Your task to perform on an android device: Open sound settings Image 0: 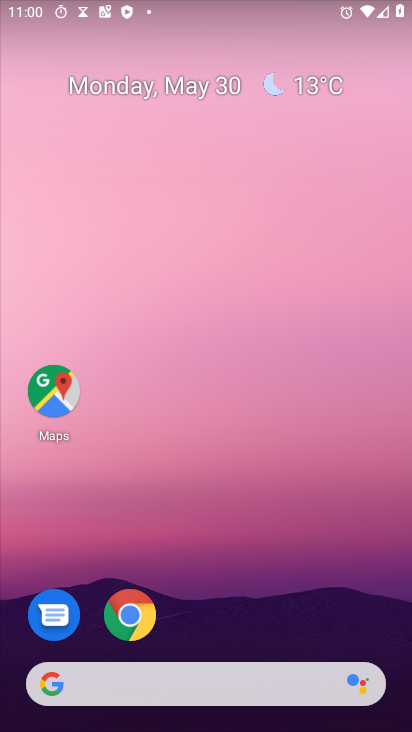
Step 0: drag from (325, 601) to (300, 13)
Your task to perform on an android device: Open sound settings Image 1: 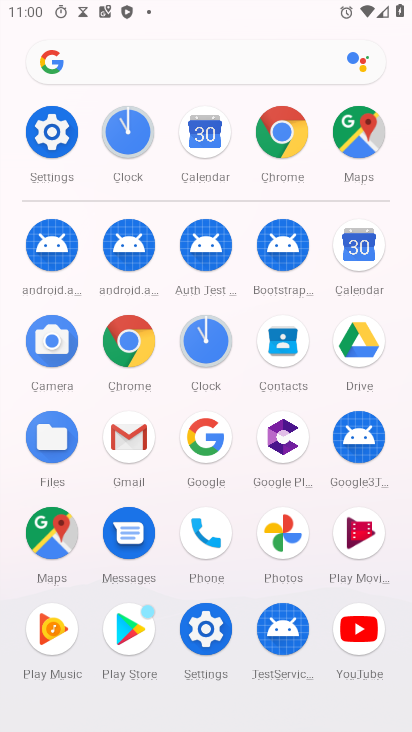
Step 1: click (38, 148)
Your task to perform on an android device: Open sound settings Image 2: 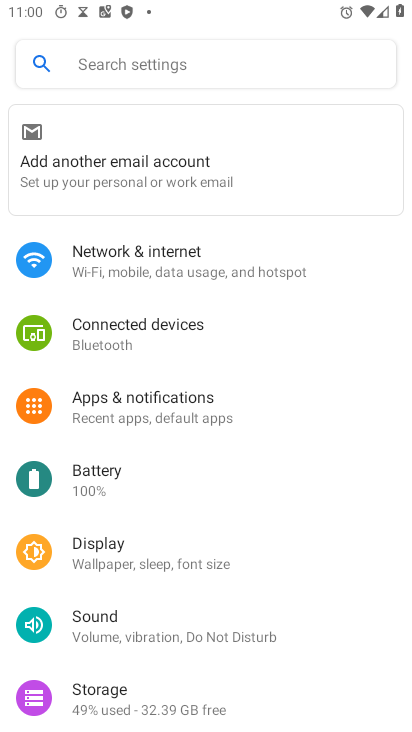
Step 2: drag from (278, 662) to (313, 234)
Your task to perform on an android device: Open sound settings Image 3: 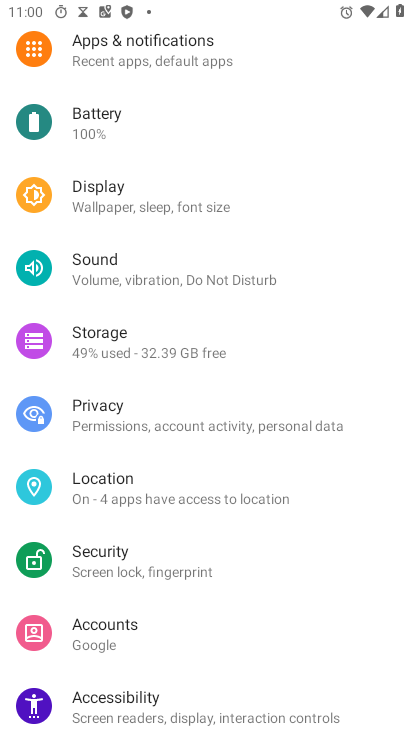
Step 3: drag from (238, 597) to (289, 170)
Your task to perform on an android device: Open sound settings Image 4: 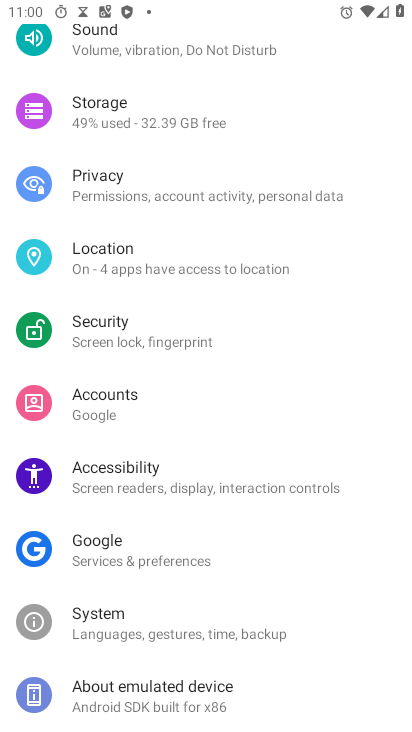
Step 4: drag from (159, 221) to (276, 644)
Your task to perform on an android device: Open sound settings Image 5: 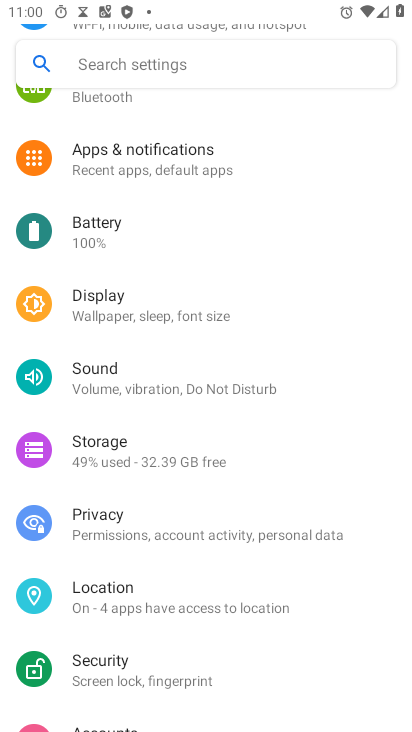
Step 5: drag from (204, 225) to (272, 605)
Your task to perform on an android device: Open sound settings Image 6: 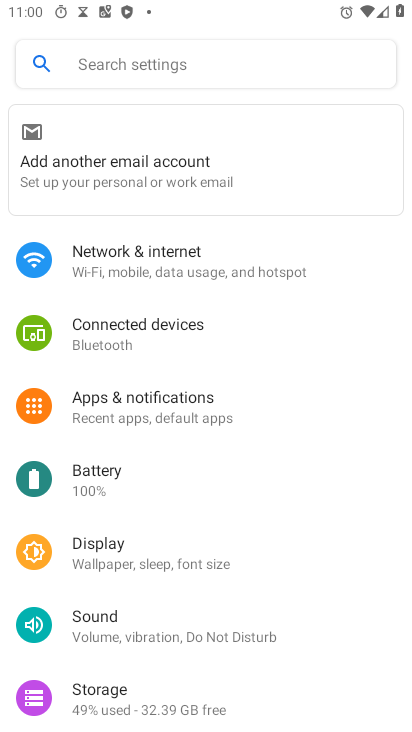
Step 6: drag from (216, 634) to (205, 327)
Your task to perform on an android device: Open sound settings Image 7: 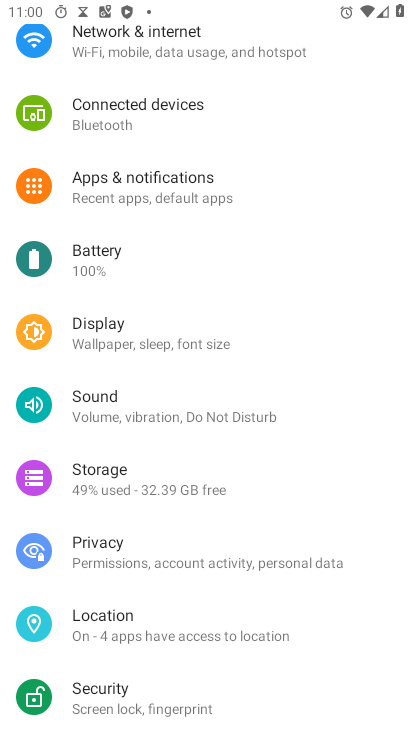
Step 7: click (140, 406)
Your task to perform on an android device: Open sound settings Image 8: 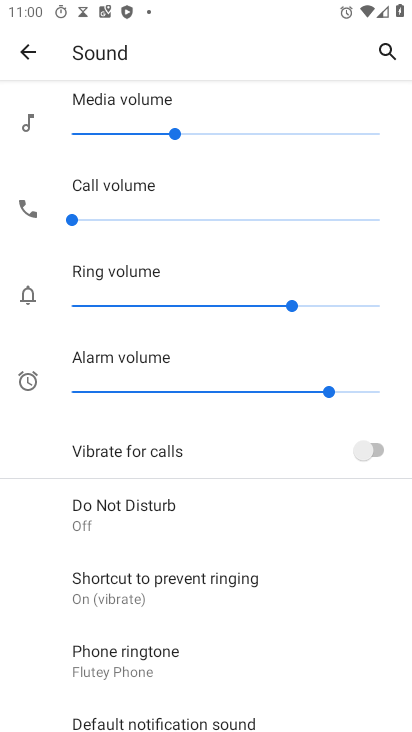
Step 8: task complete